Your task to perform on an android device: turn on data saver in the chrome app Image 0: 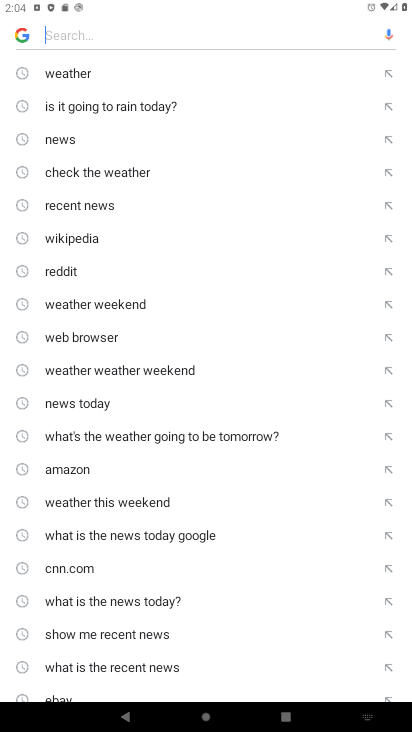
Step 0: press home button
Your task to perform on an android device: turn on data saver in the chrome app Image 1: 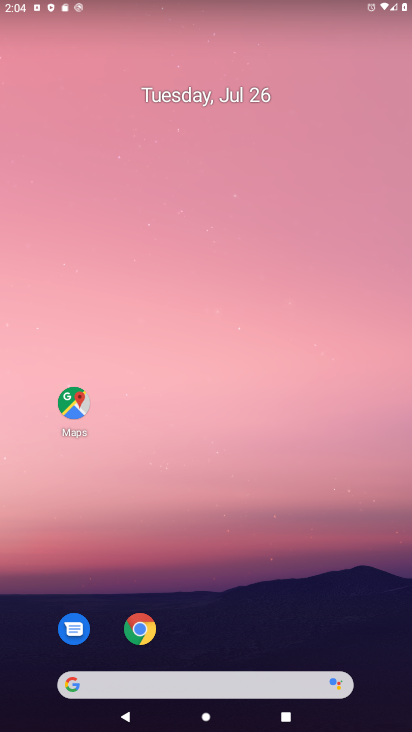
Step 1: click (142, 632)
Your task to perform on an android device: turn on data saver in the chrome app Image 2: 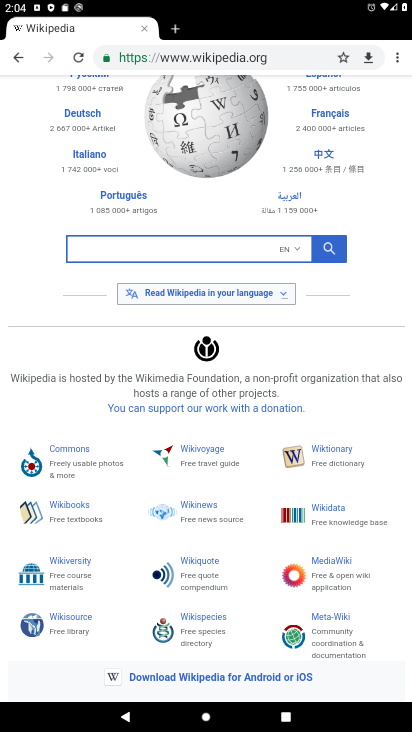
Step 2: click (397, 60)
Your task to perform on an android device: turn on data saver in the chrome app Image 3: 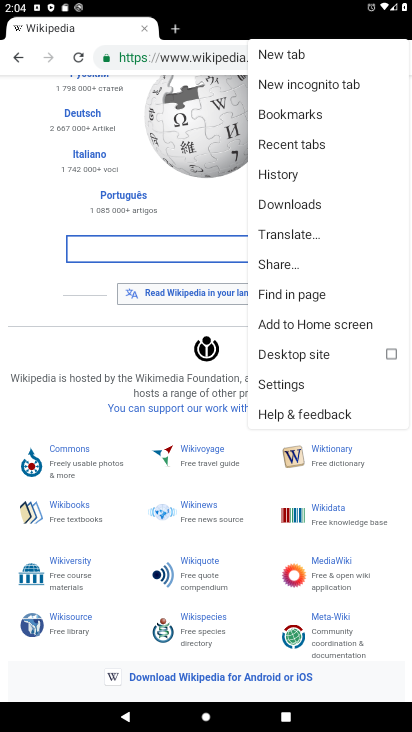
Step 3: click (289, 380)
Your task to perform on an android device: turn on data saver in the chrome app Image 4: 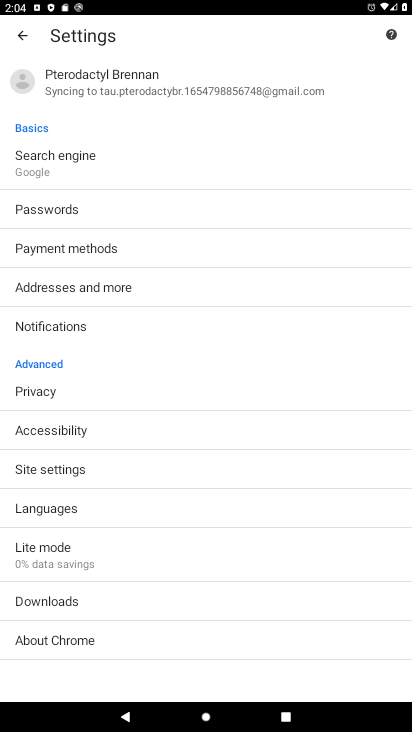
Step 4: click (51, 547)
Your task to perform on an android device: turn on data saver in the chrome app Image 5: 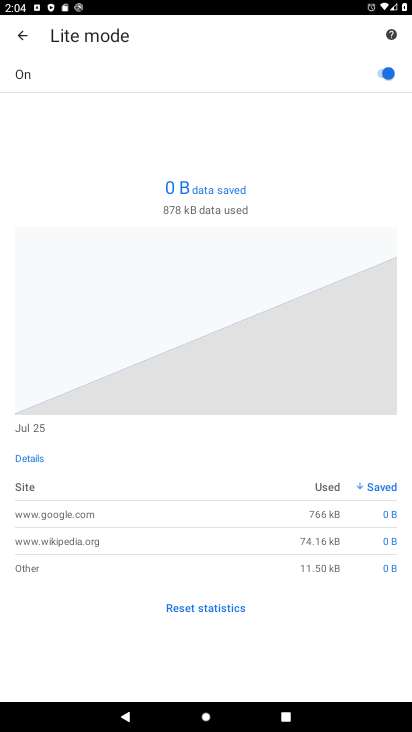
Step 5: task complete